Your task to perform on an android device: turn on the 12-hour format for clock Image 0: 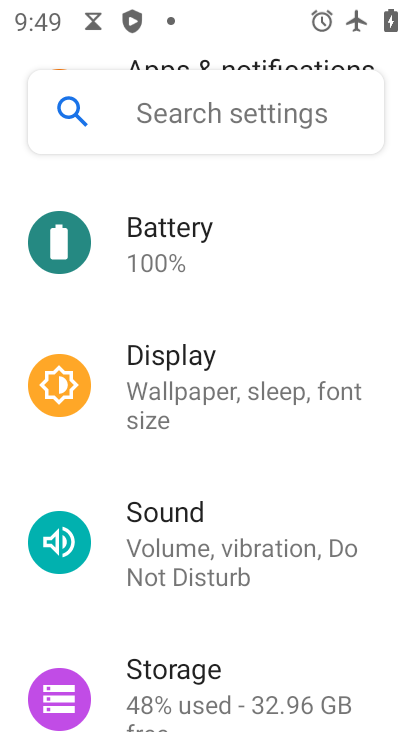
Step 0: press home button
Your task to perform on an android device: turn on the 12-hour format for clock Image 1: 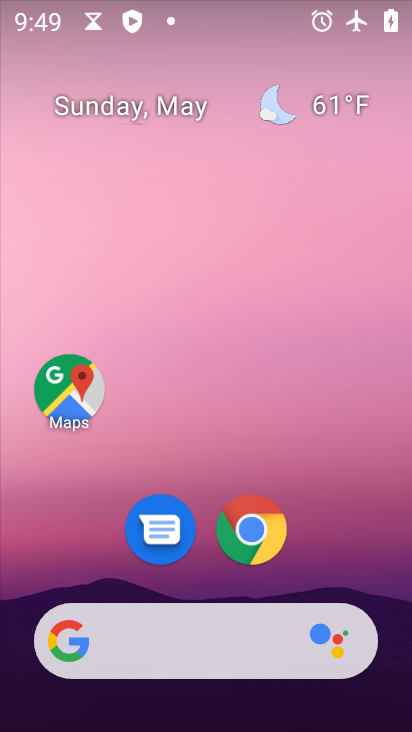
Step 1: drag from (224, 725) to (191, 251)
Your task to perform on an android device: turn on the 12-hour format for clock Image 2: 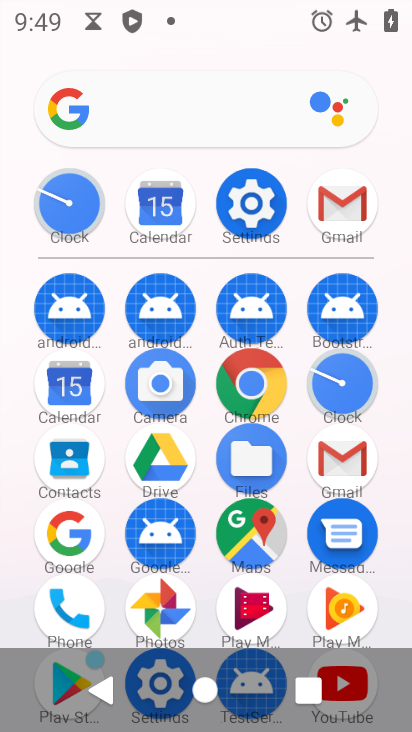
Step 2: click (350, 382)
Your task to perform on an android device: turn on the 12-hour format for clock Image 3: 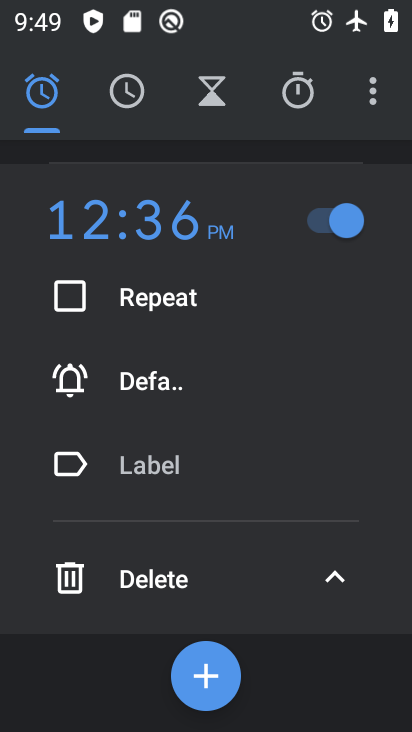
Step 3: click (372, 99)
Your task to perform on an android device: turn on the 12-hour format for clock Image 4: 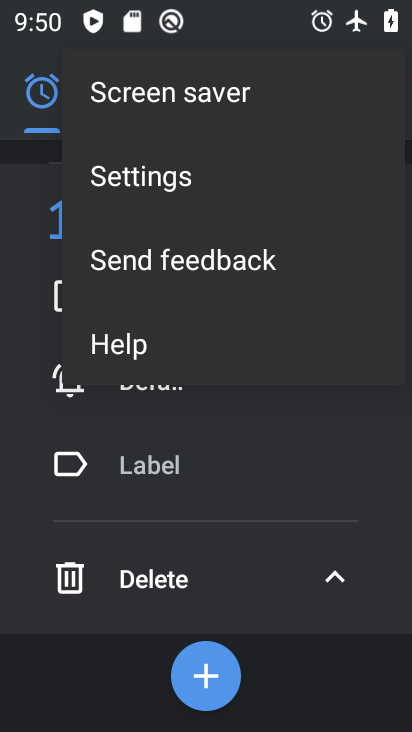
Step 4: click (170, 172)
Your task to perform on an android device: turn on the 12-hour format for clock Image 5: 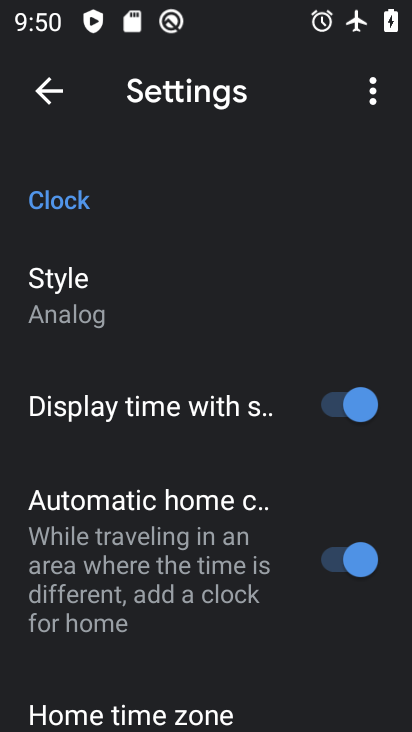
Step 5: drag from (114, 512) to (101, 221)
Your task to perform on an android device: turn on the 12-hour format for clock Image 6: 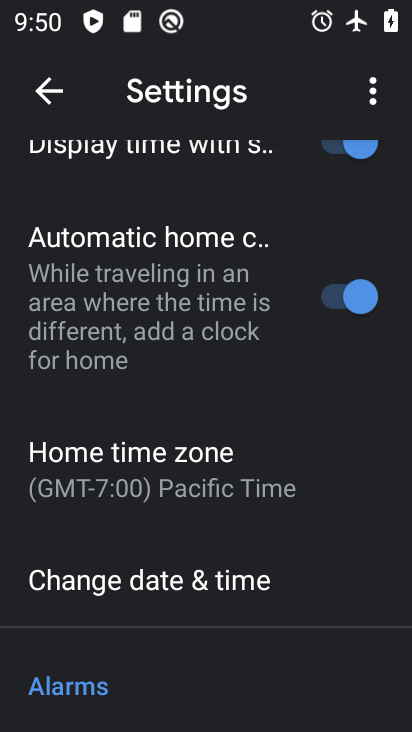
Step 6: drag from (135, 648) to (119, 424)
Your task to perform on an android device: turn on the 12-hour format for clock Image 7: 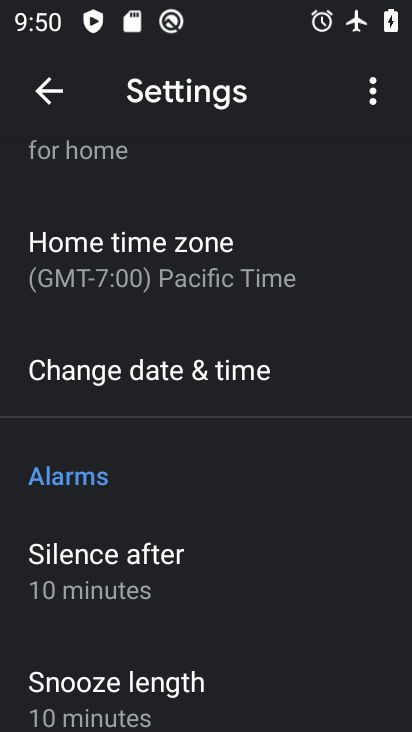
Step 7: click (172, 368)
Your task to perform on an android device: turn on the 12-hour format for clock Image 8: 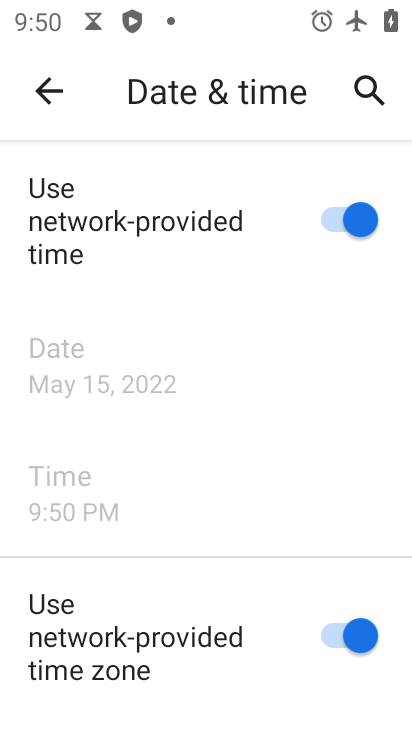
Step 8: task complete